Your task to perform on an android device: Go to accessibility settings Image 0: 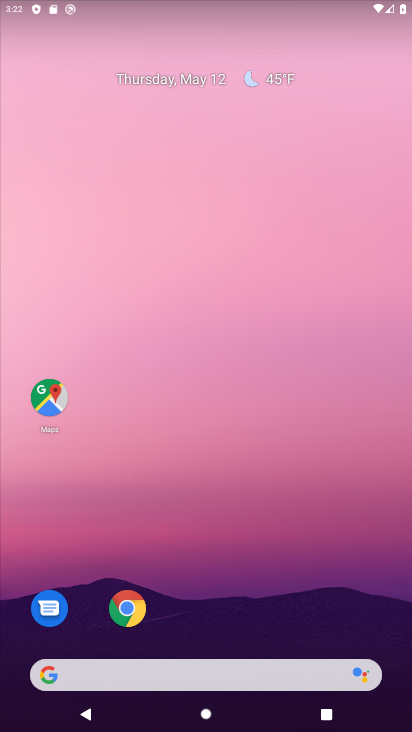
Step 0: drag from (221, 647) to (199, 113)
Your task to perform on an android device: Go to accessibility settings Image 1: 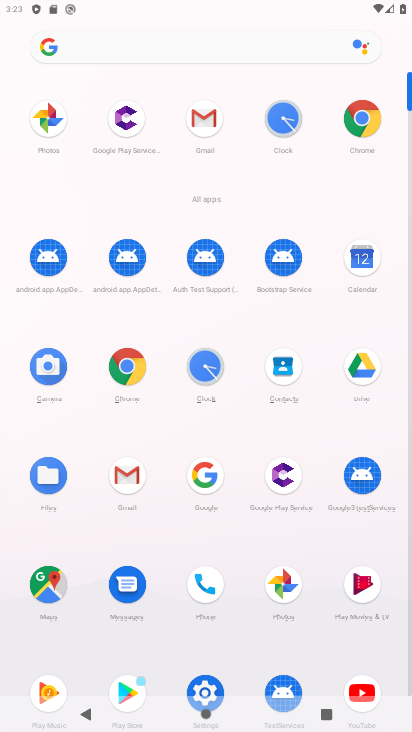
Step 1: click (202, 680)
Your task to perform on an android device: Go to accessibility settings Image 2: 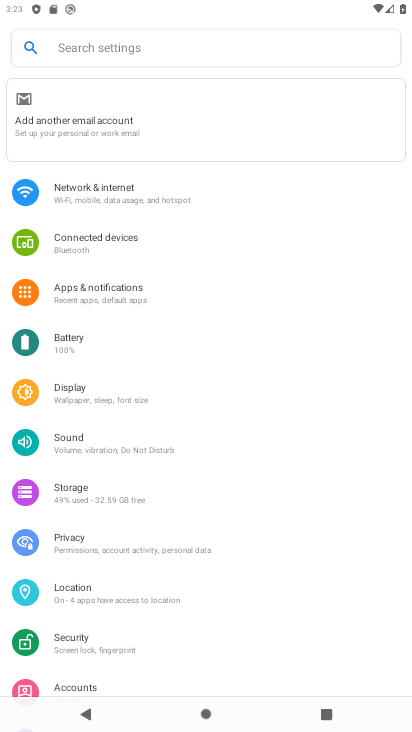
Step 2: drag from (147, 659) to (237, 1)
Your task to perform on an android device: Go to accessibility settings Image 3: 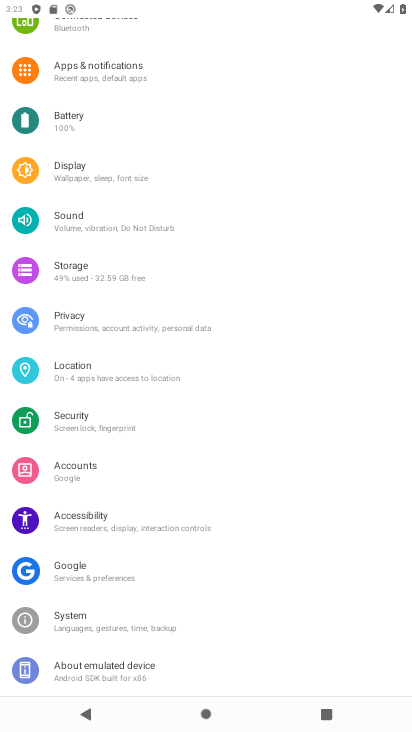
Step 3: click (100, 681)
Your task to perform on an android device: Go to accessibility settings Image 4: 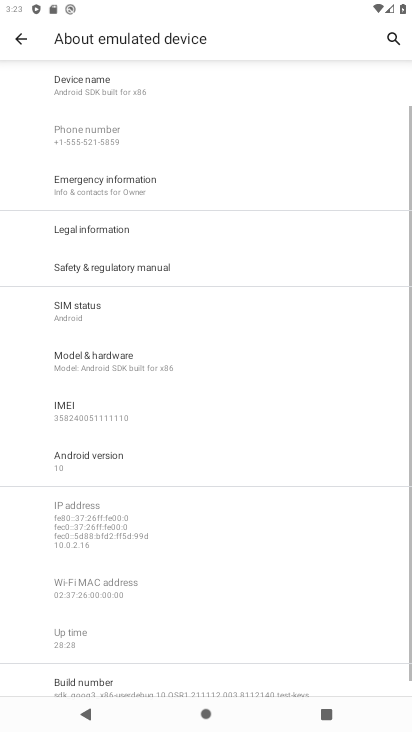
Step 4: click (20, 38)
Your task to perform on an android device: Go to accessibility settings Image 5: 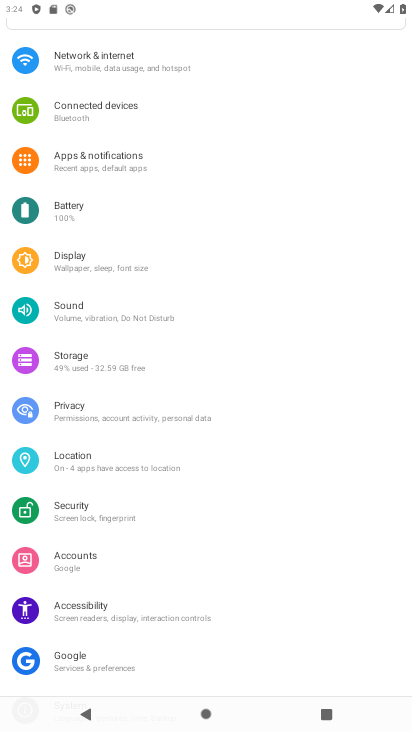
Step 5: click (96, 608)
Your task to perform on an android device: Go to accessibility settings Image 6: 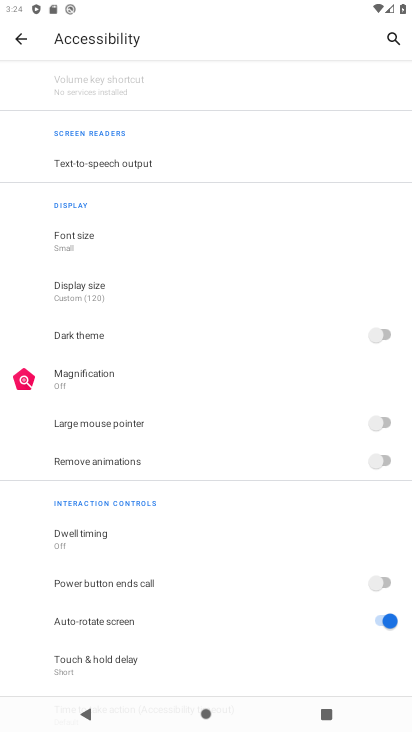
Step 6: task complete